Your task to perform on an android device: Clear the shopping cart on amazon. Search for macbook pro on amazon, select the first entry, add it to the cart, then select checkout. Image 0: 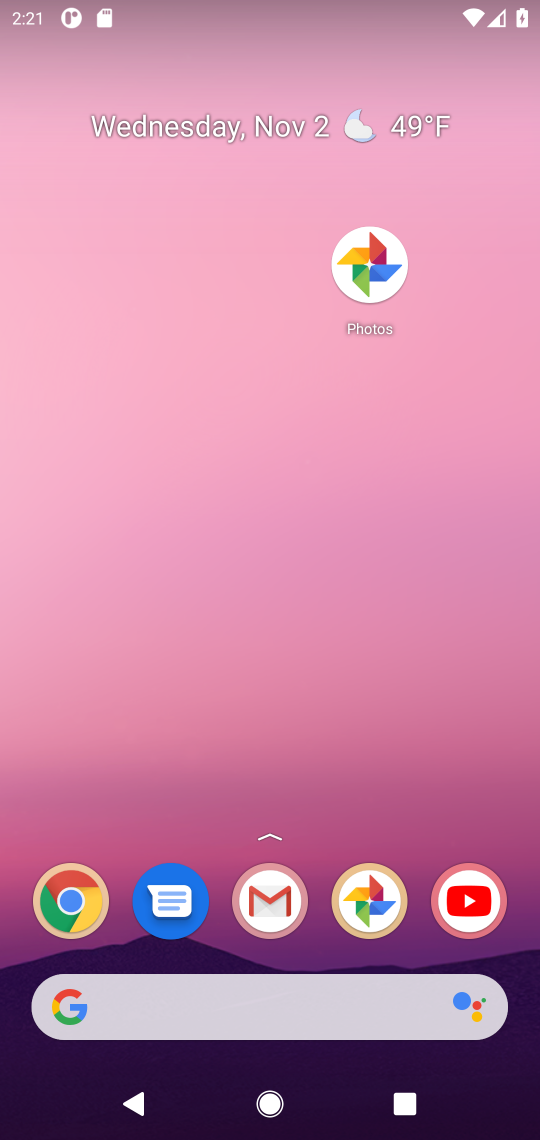
Step 0: drag from (318, 964) to (282, 95)
Your task to perform on an android device: Clear the shopping cart on amazon. Search for macbook pro on amazon, select the first entry, add it to the cart, then select checkout. Image 1: 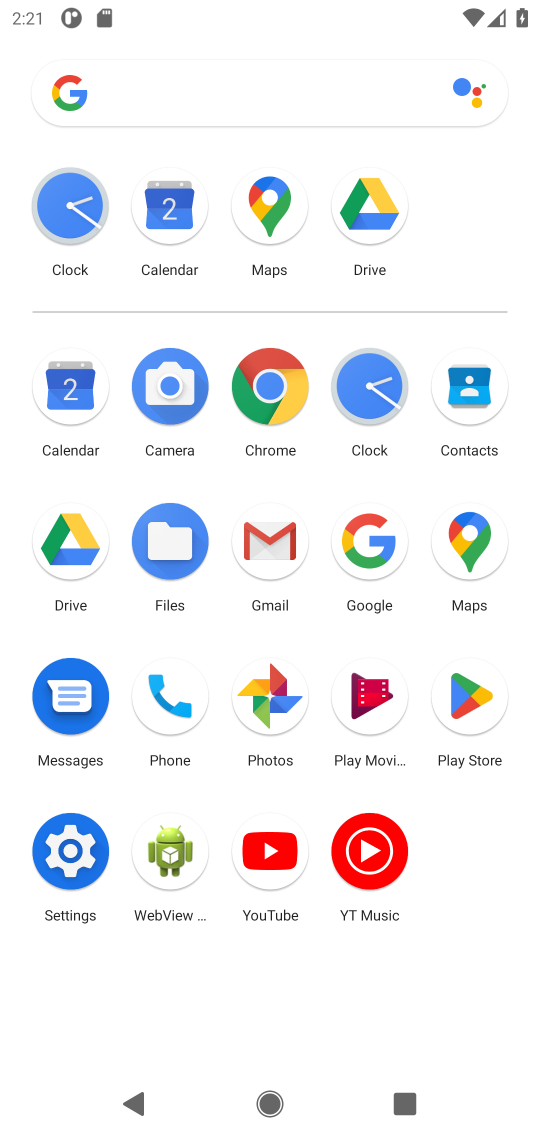
Step 1: click (268, 382)
Your task to perform on an android device: Clear the shopping cart on amazon. Search for macbook pro on amazon, select the first entry, add it to the cart, then select checkout. Image 2: 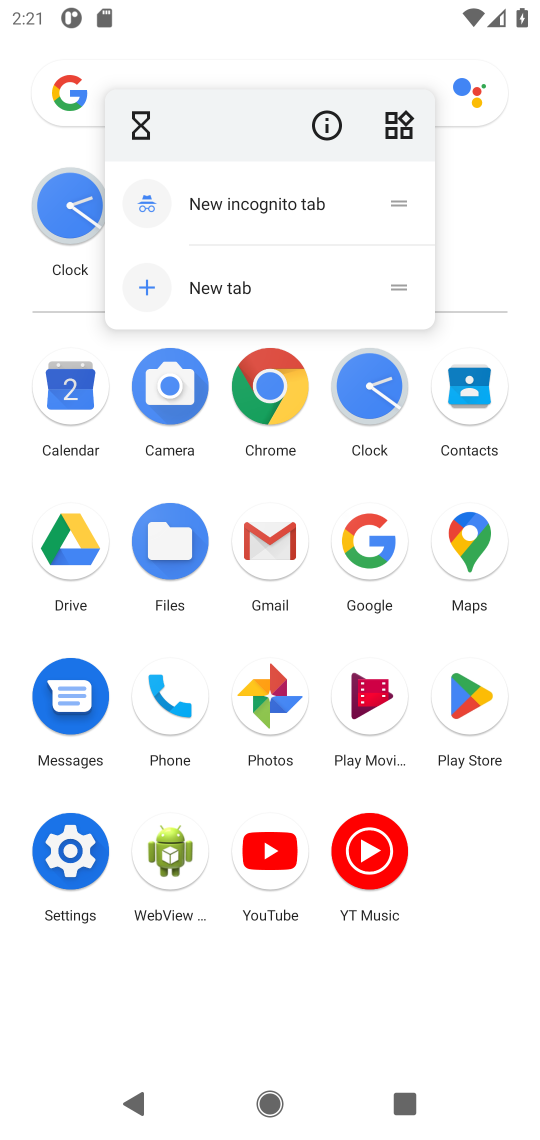
Step 2: click (274, 386)
Your task to perform on an android device: Clear the shopping cart on amazon. Search for macbook pro on amazon, select the first entry, add it to the cart, then select checkout. Image 3: 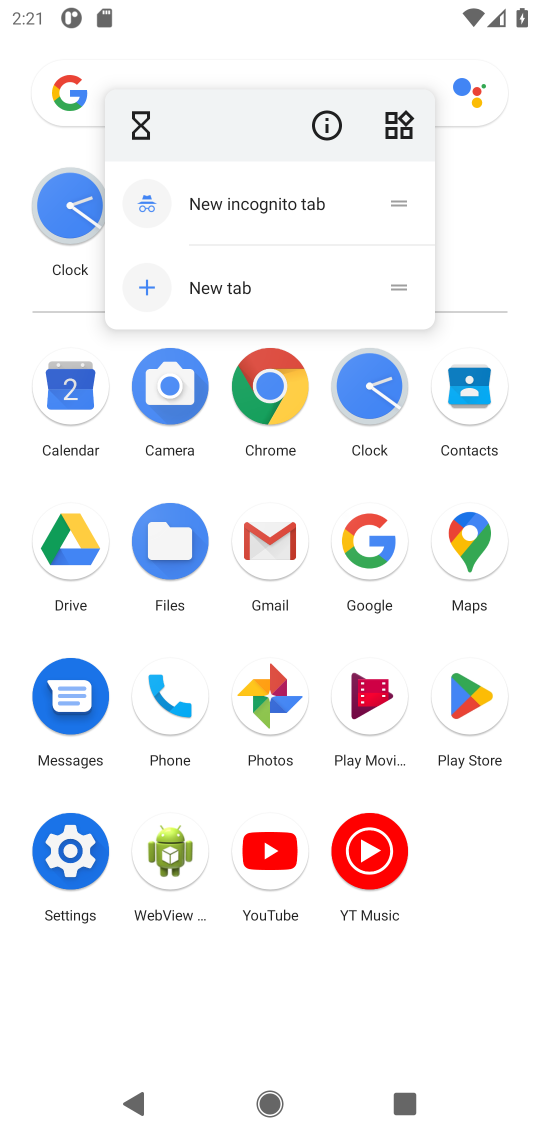
Step 3: click (268, 392)
Your task to perform on an android device: Clear the shopping cart on amazon. Search for macbook pro on amazon, select the first entry, add it to the cart, then select checkout. Image 4: 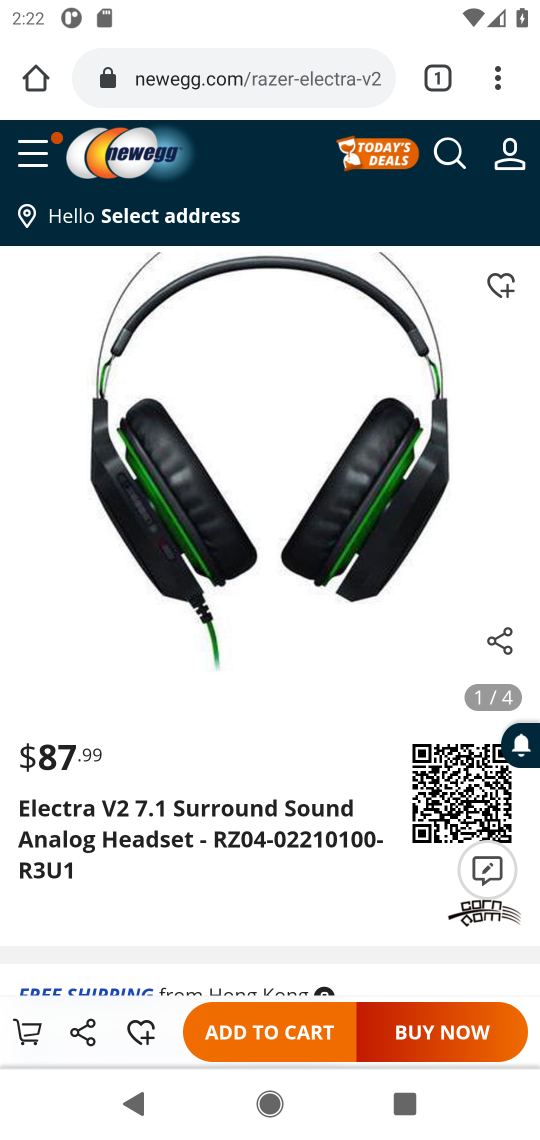
Step 4: click (326, 93)
Your task to perform on an android device: Clear the shopping cart on amazon. Search for macbook pro on amazon, select the first entry, add it to the cart, then select checkout. Image 5: 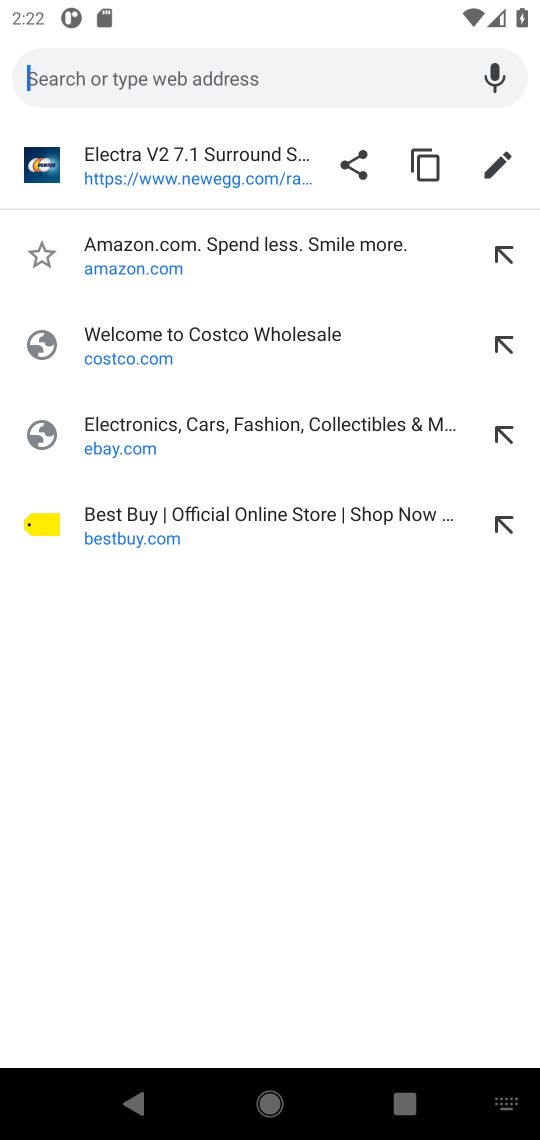
Step 5: type "amazon.com"
Your task to perform on an android device: Clear the shopping cart on amazon. Search for macbook pro on amazon, select the first entry, add it to the cart, then select checkout. Image 6: 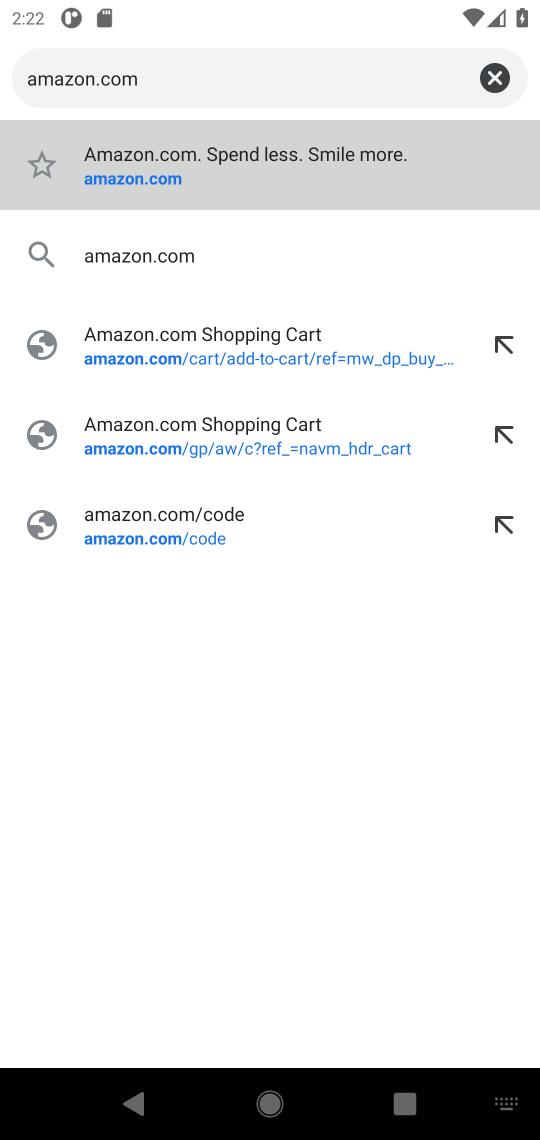
Step 6: click (179, 168)
Your task to perform on an android device: Clear the shopping cart on amazon. Search for macbook pro on amazon, select the first entry, add it to the cart, then select checkout. Image 7: 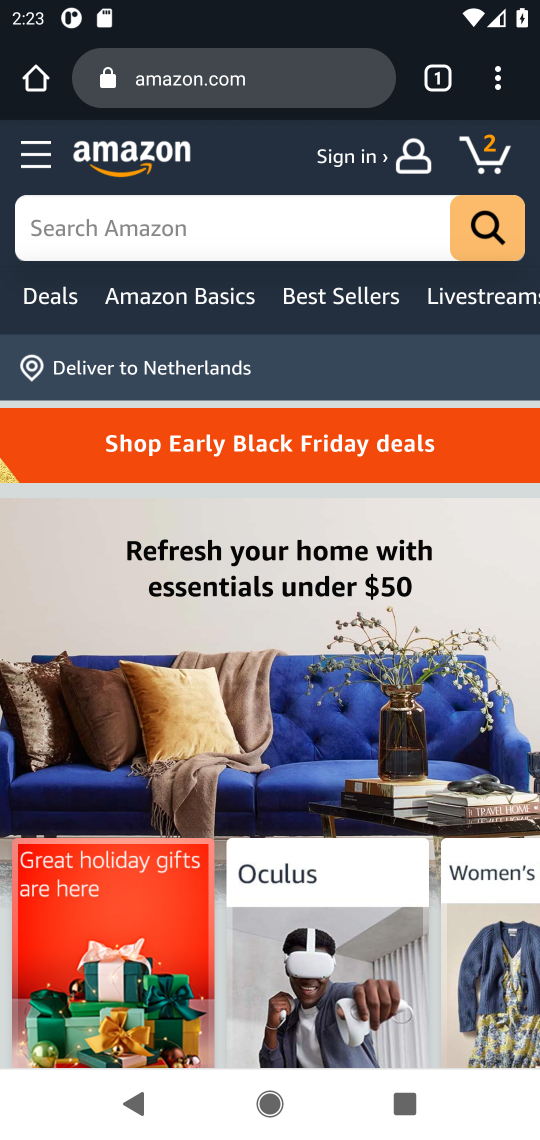
Step 7: click (311, 222)
Your task to perform on an android device: Clear the shopping cart on amazon. Search for macbook pro on amazon, select the first entry, add it to the cart, then select checkout. Image 8: 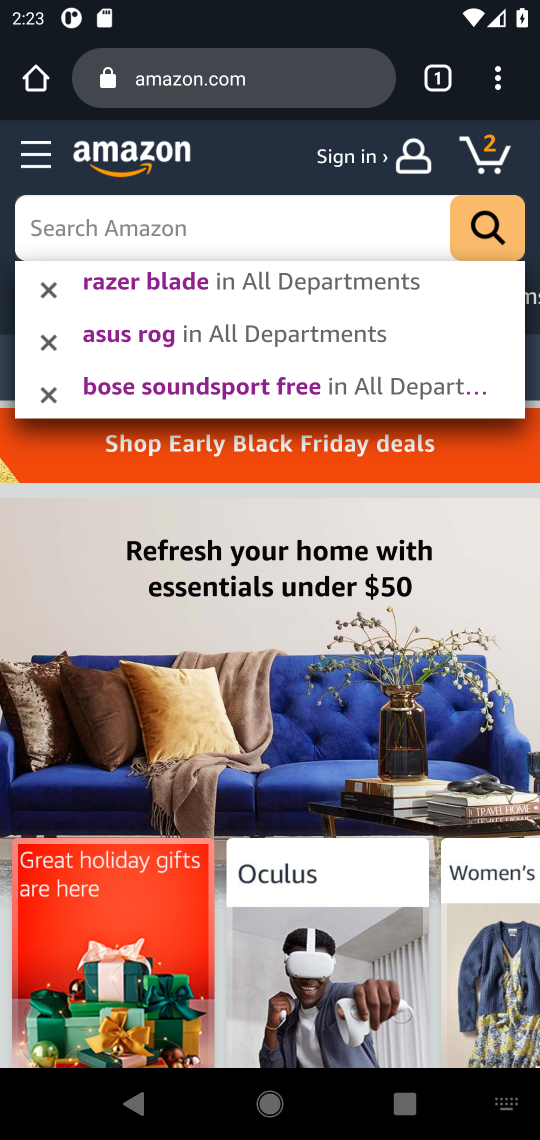
Step 8: click (488, 150)
Your task to perform on an android device: Clear the shopping cart on amazon. Search for macbook pro on amazon, select the first entry, add it to the cart, then select checkout. Image 9: 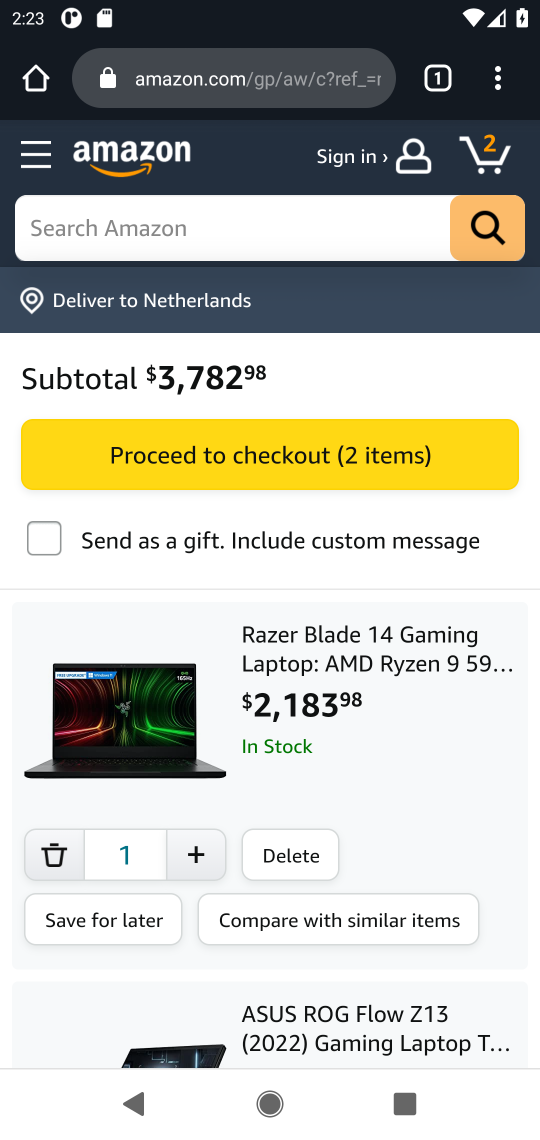
Step 9: click (58, 859)
Your task to perform on an android device: Clear the shopping cart on amazon. Search for macbook pro on amazon, select the first entry, add it to the cart, then select checkout. Image 10: 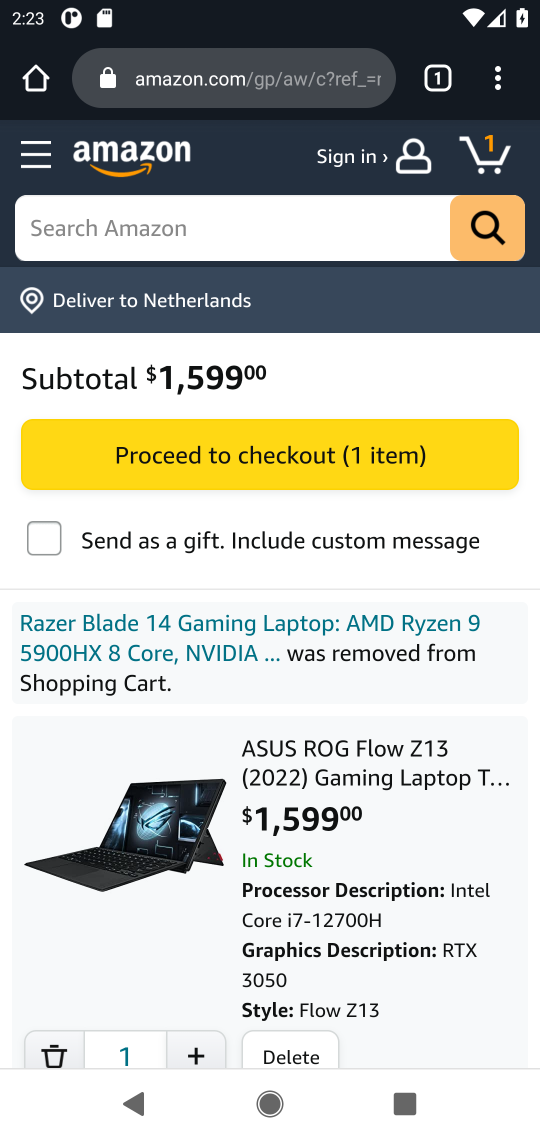
Step 10: click (51, 1045)
Your task to perform on an android device: Clear the shopping cart on amazon. Search for macbook pro on amazon, select the first entry, add it to the cart, then select checkout. Image 11: 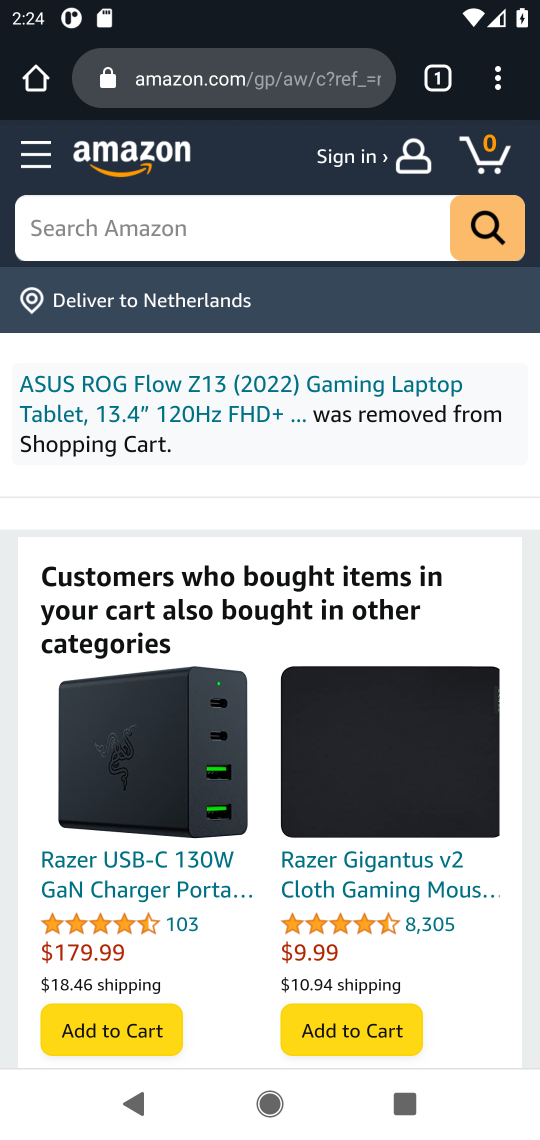
Step 11: click (308, 244)
Your task to perform on an android device: Clear the shopping cart on amazon. Search for macbook pro on amazon, select the first entry, add it to the cart, then select checkout. Image 12: 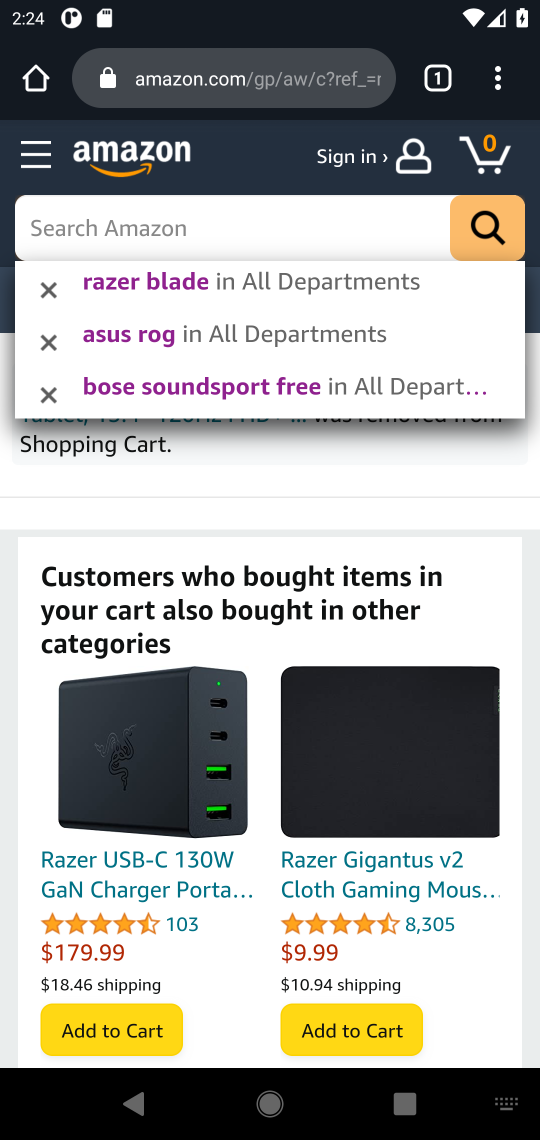
Step 12: type "macbook pro"
Your task to perform on an android device: Clear the shopping cart on amazon. Search for macbook pro on amazon, select the first entry, add it to the cart, then select checkout. Image 13: 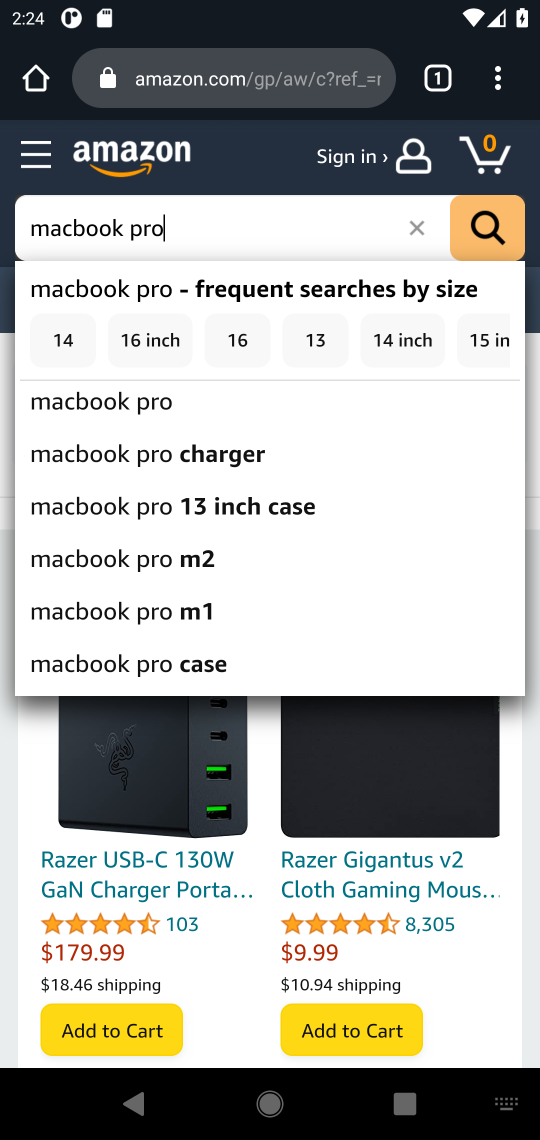
Step 13: press enter
Your task to perform on an android device: Clear the shopping cart on amazon. Search for macbook pro on amazon, select the first entry, add it to the cart, then select checkout. Image 14: 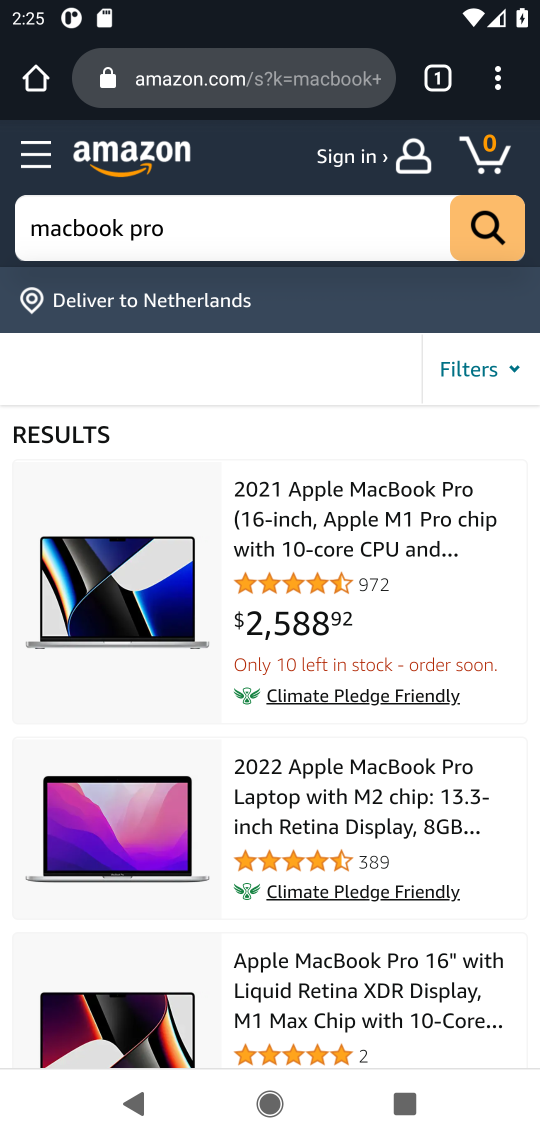
Step 14: click (365, 513)
Your task to perform on an android device: Clear the shopping cart on amazon. Search for macbook pro on amazon, select the first entry, add it to the cart, then select checkout. Image 15: 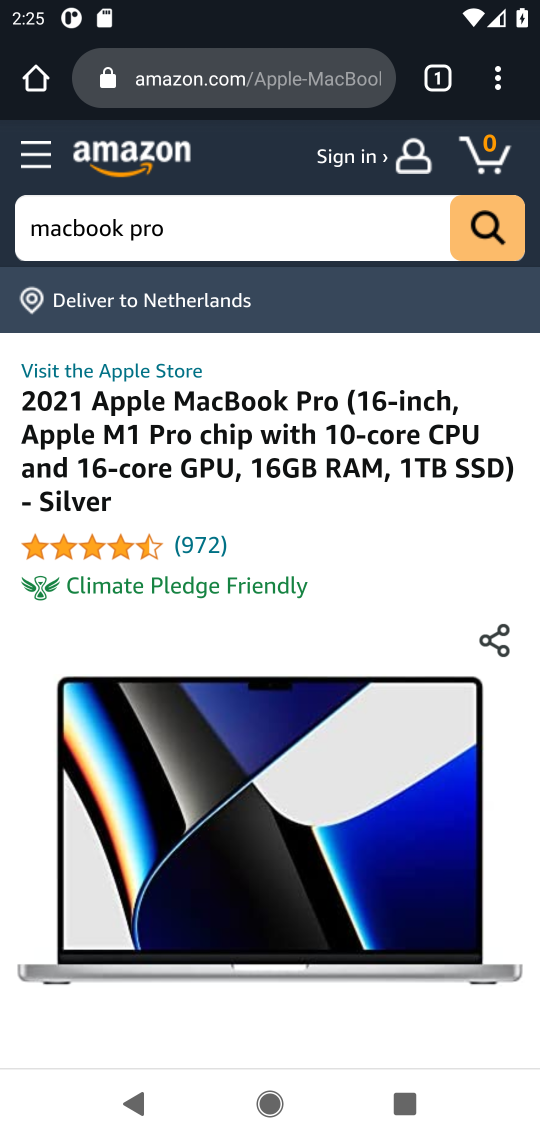
Step 15: task complete